Your task to perform on an android device: Check the latest toasters on Target. Image 0: 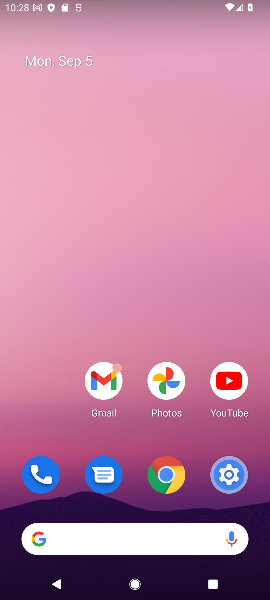
Step 0: click (126, 530)
Your task to perform on an android device: Check the latest toasters on Target. Image 1: 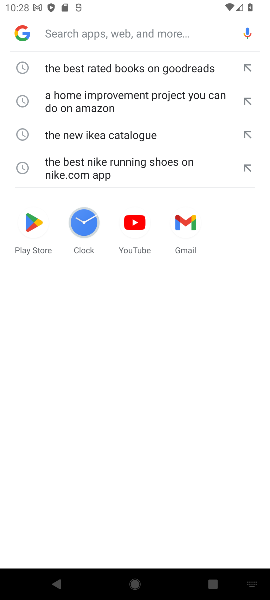
Step 1: type "latest toasters on Target"
Your task to perform on an android device: Check the latest toasters on Target. Image 2: 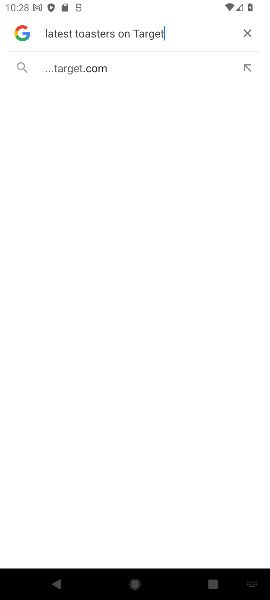
Step 2: click (82, 62)
Your task to perform on an android device: Check the latest toasters on Target. Image 3: 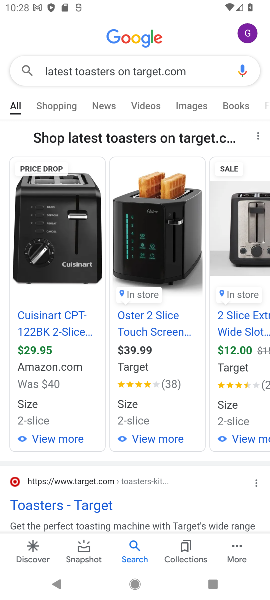
Step 3: task complete